Your task to perform on an android device: Open battery settings Image 0: 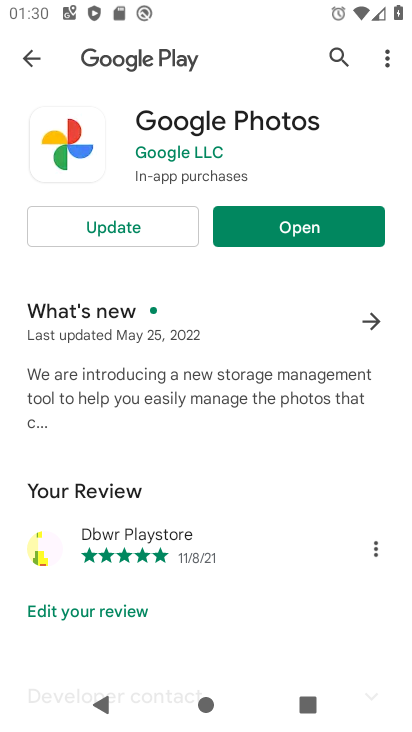
Step 0: press home button
Your task to perform on an android device: Open battery settings Image 1: 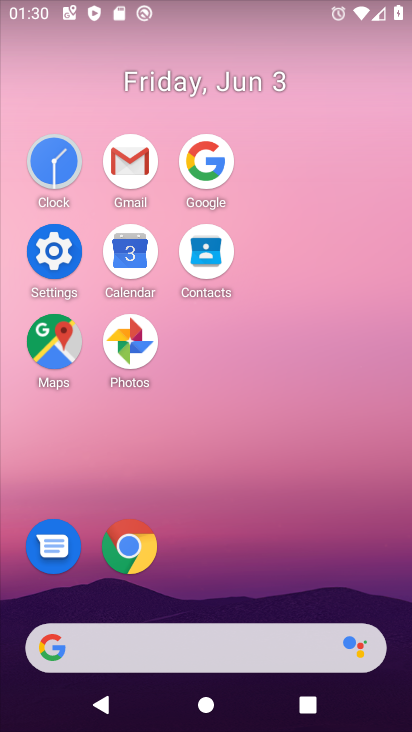
Step 1: click (53, 258)
Your task to perform on an android device: Open battery settings Image 2: 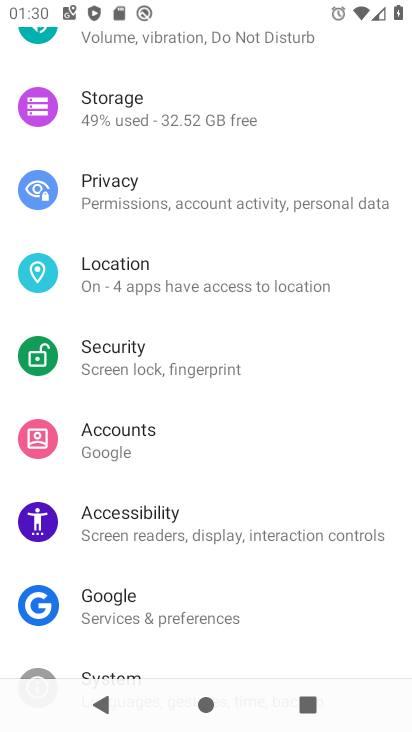
Step 2: drag from (196, 79) to (253, 447)
Your task to perform on an android device: Open battery settings Image 3: 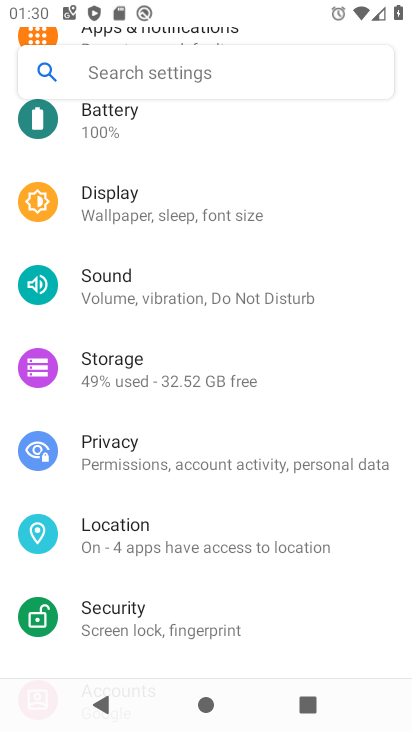
Step 3: click (137, 125)
Your task to perform on an android device: Open battery settings Image 4: 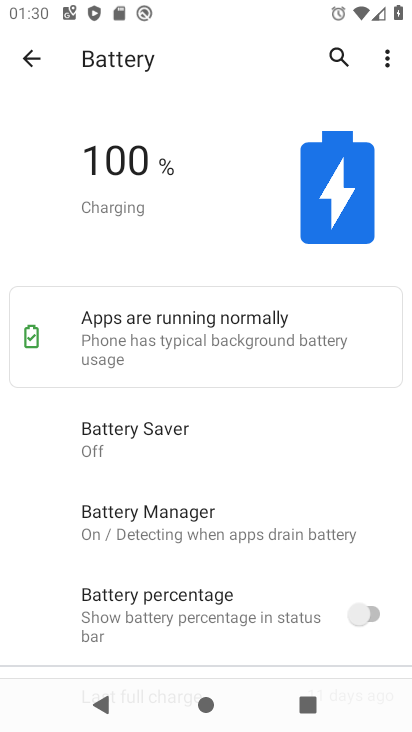
Step 4: task complete